Your task to perform on an android device: Search for "usb-a" on walmart, select the first entry, and add it to the cart. Image 0: 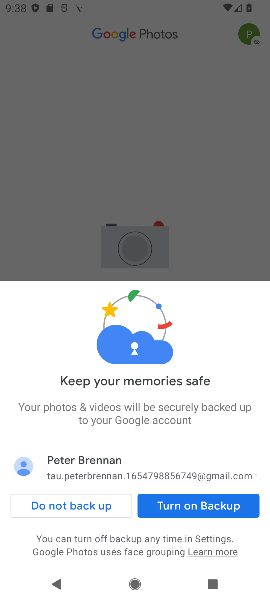
Step 0: task complete